Your task to perform on an android device: turn notification dots on Image 0: 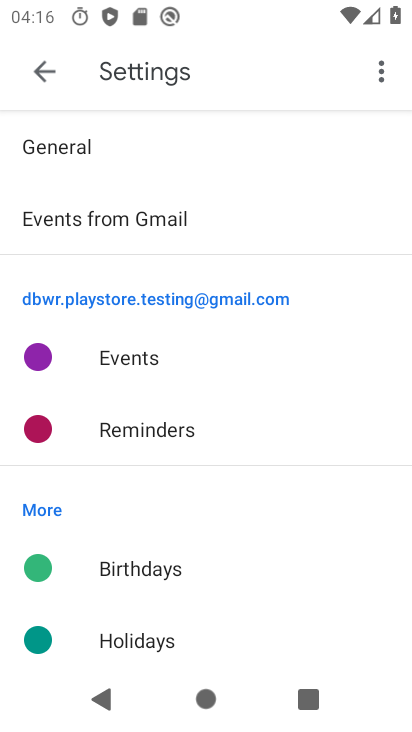
Step 0: press back button
Your task to perform on an android device: turn notification dots on Image 1: 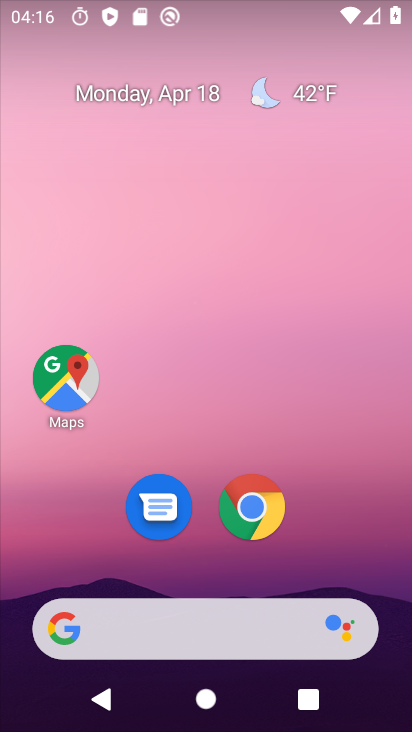
Step 1: drag from (324, 570) to (335, 55)
Your task to perform on an android device: turn notification dots on Image 2: 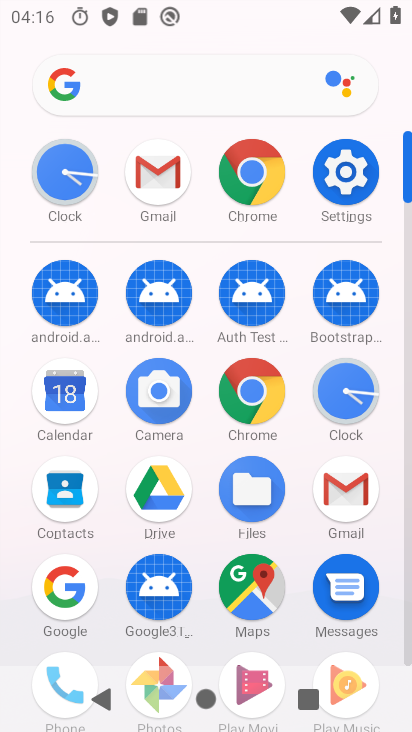
Step 2: click (354, 177)
Your task to perform on an android device: turn notification dots on Image 3: 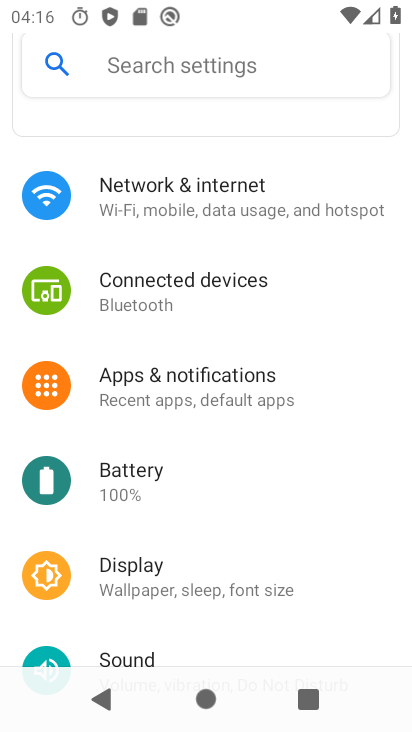
Step 3: click (189, 391)
Your task to perform on an android device: turn notification dots on Image 4: 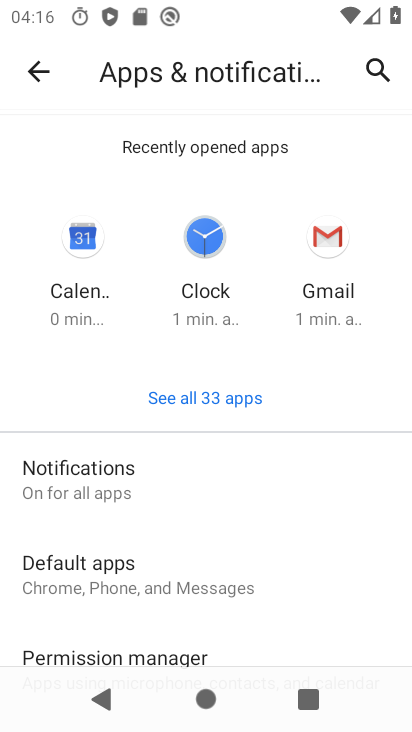
Step 4: click (173, 473)
Your task to perform on an android device: turn notification dots on Image 5: 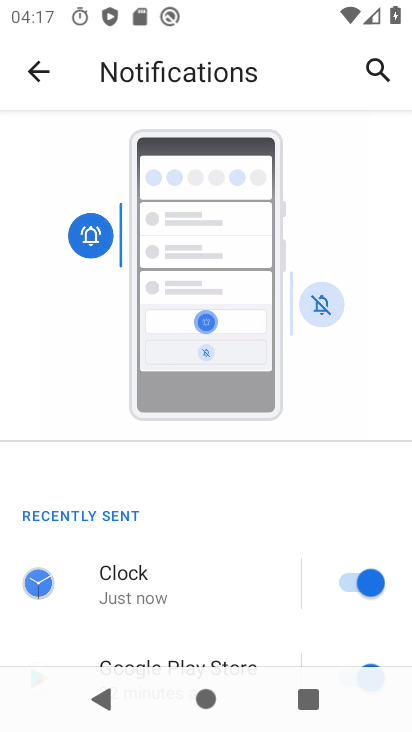
Step 5: drag from (161, 567) to (175, 319)
Your task to perform on an android device: turn notification dots on Image 6: 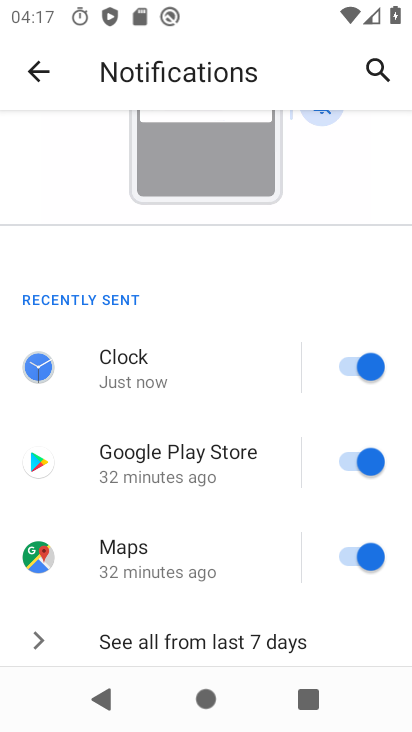
Step 6: drag from (166, 582) to (174, 365)
Your task to perform on an android device: turn notification dots on Image 7: 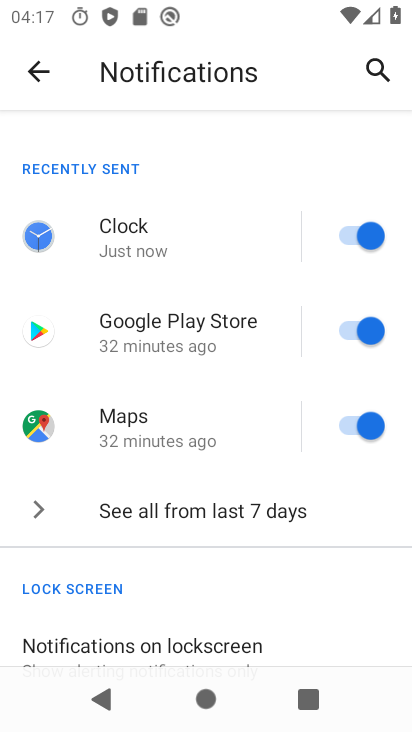
Step 7: drag from (210, 616) to (206, 400)
Your task to perform on an android device: turn notification dots on Image 8: 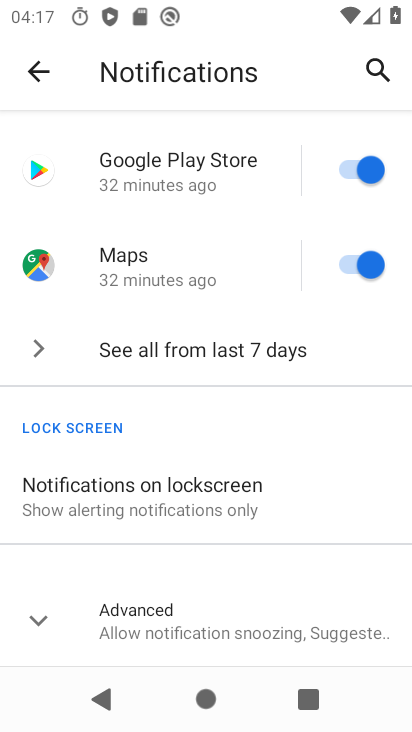
Step 8: click (225, 611)
Your task to perform on an android device: turn notification dots on Image 9: 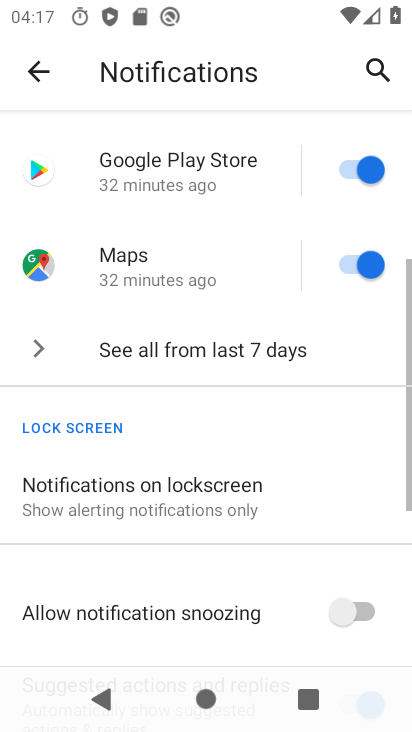
Step 9: drag from (242, 603) to (195, 383)
Your task to perform on an android device: turn notification dots on Image 10: 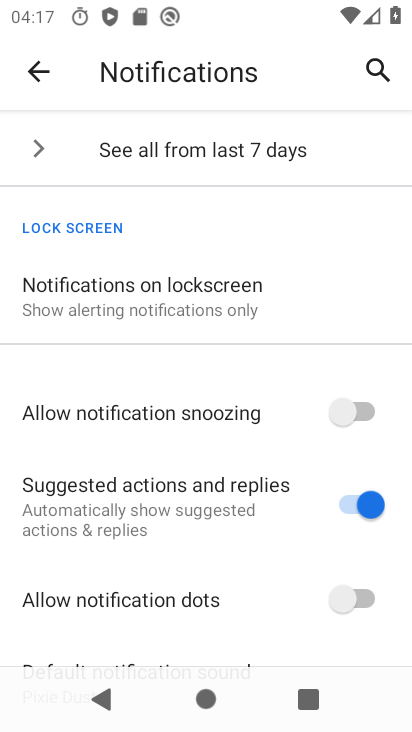
Step 10: click (353, 599)
Your task to perform on an android device: turn notification dots on Image 11: 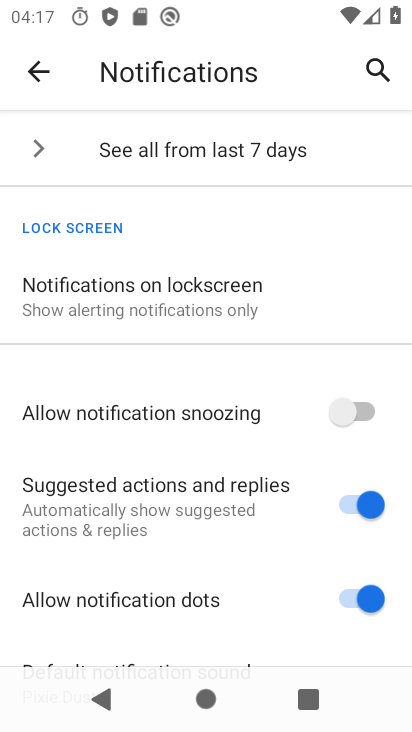
Step 11: task complete